Your task to perform on an android device: Go to settings Image 0: 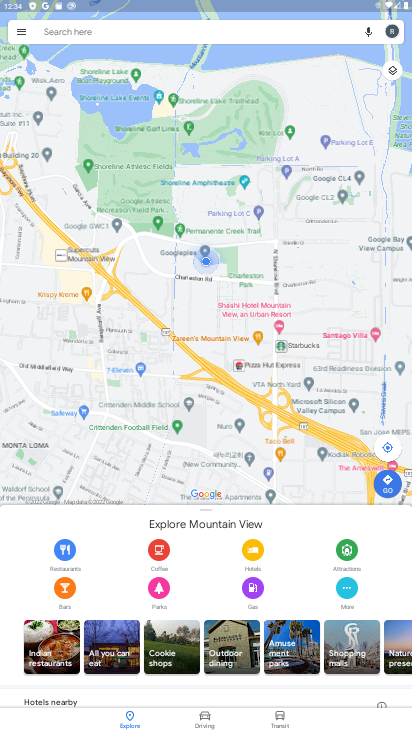
Step 0: press home button
Your task to perform on an android device: Go to settings Image 1: 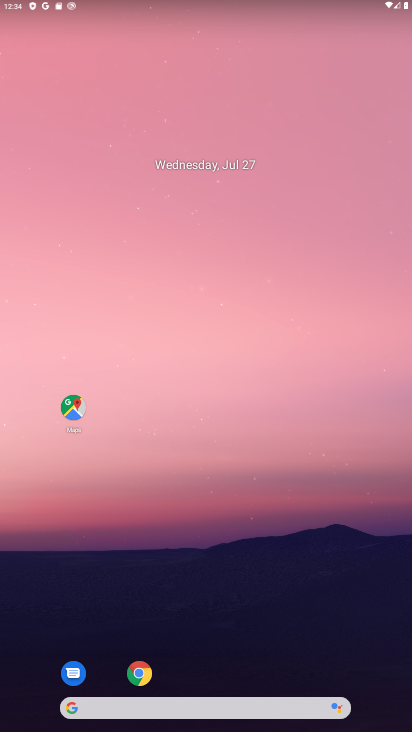
Step 1: drag from (208, 648) to (251, 2)
Your task to perform on an android device: Go to settings Image 2: 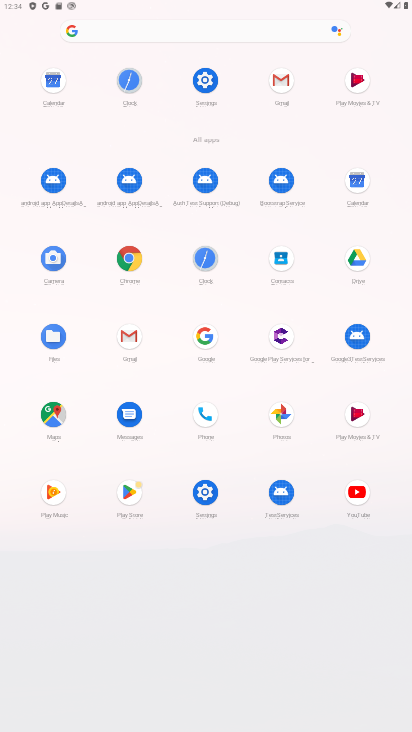
Step 2: click (208, 88)
Your task to perform on an android device: Go to settings Image 3: 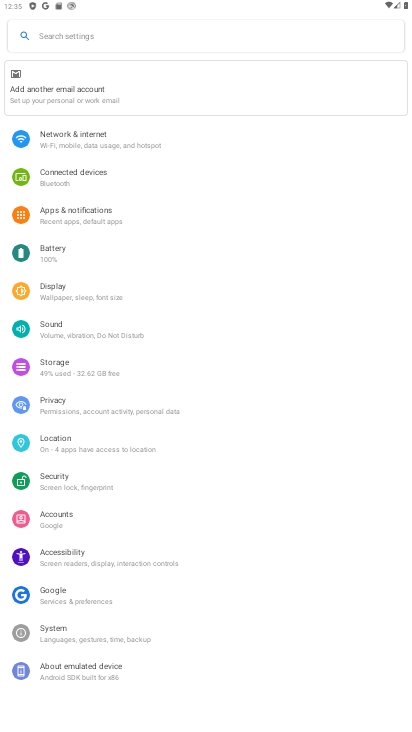
Step 3: task complete